Your task to perform on an android device: change keyboard looks Image 0: 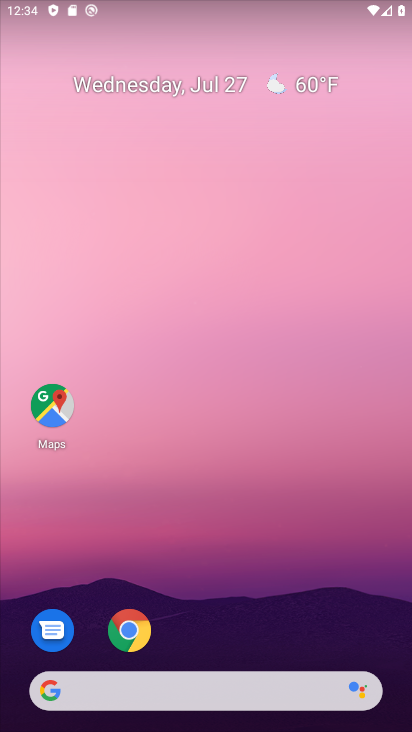
Step 0: press home button
Your task to perform on an android device: change keyboard looks Image 1: 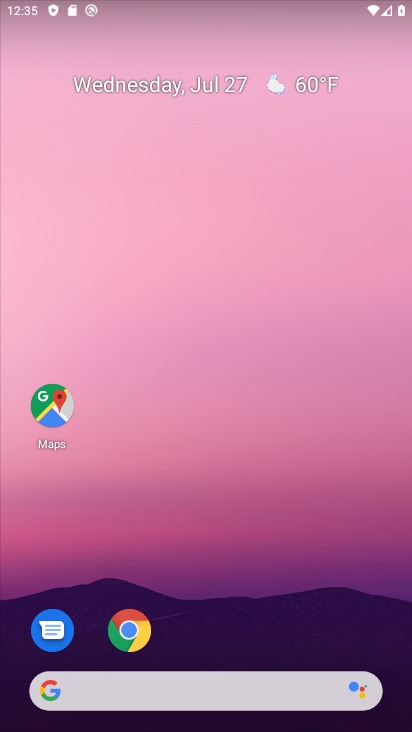
Step 1: drag from (266, 391) to (293, 29)
Your task to perform on an android device: change keyboard looks Image 2: 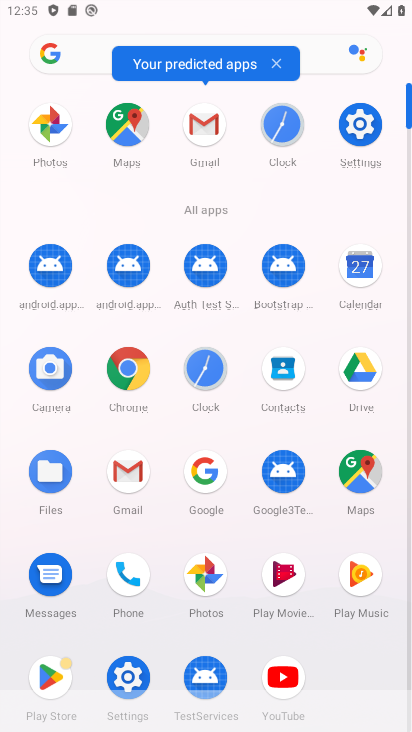
Step 2: click (358, 134)
Your task to perform on an android device: change keyboard looks Image 3: 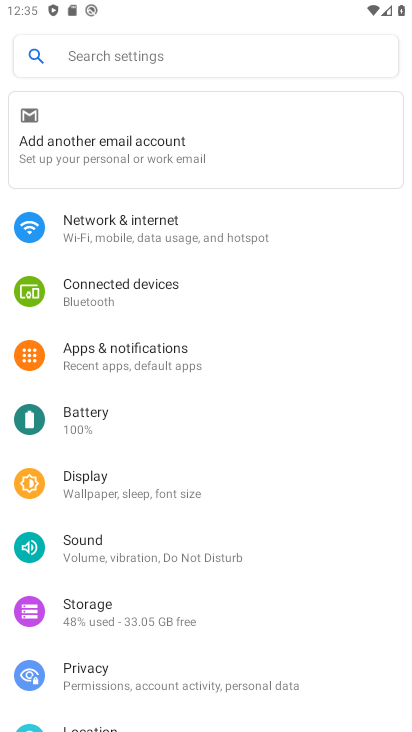
Step 3: drag from (309, 619) to (307, 110)
Your task to perform on an android device: change keyboard looks Image 4: 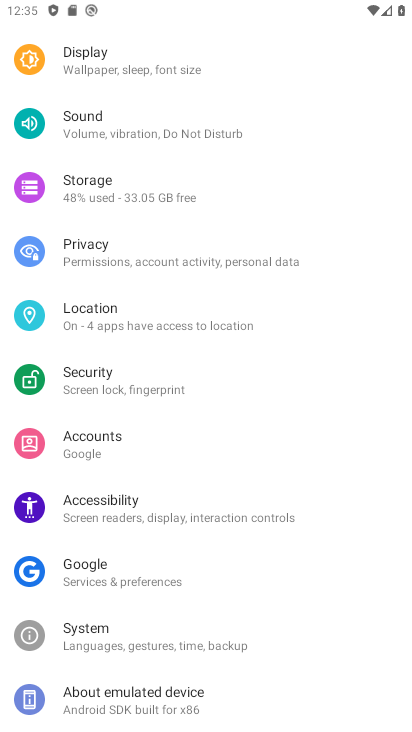
Step 4: click (117, 645)
Your task to perform on an android device: change keyboard looks Image 5: 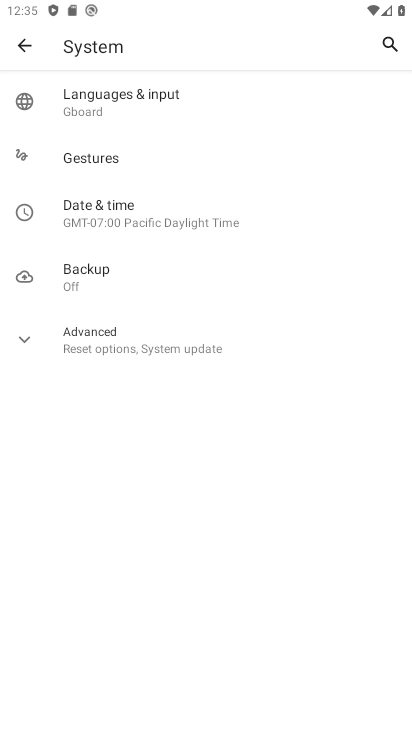
Step 5: click (104, 99)
Your task to perform on an android device: change keyboard looks Image 6: 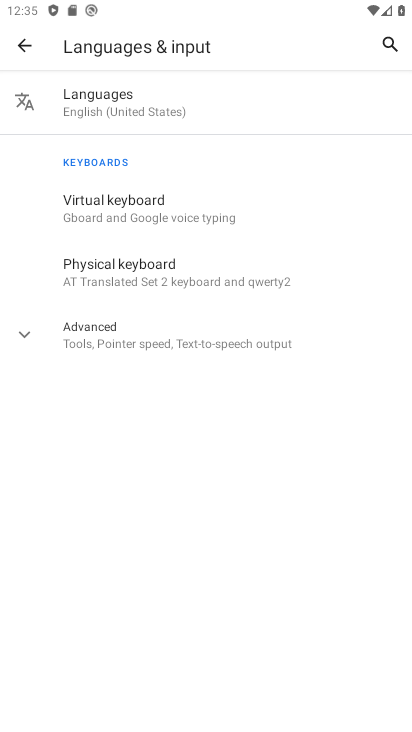
Step 6: click (94, 212)
Your task to perform on an android device: change keyboard looks Image 7: 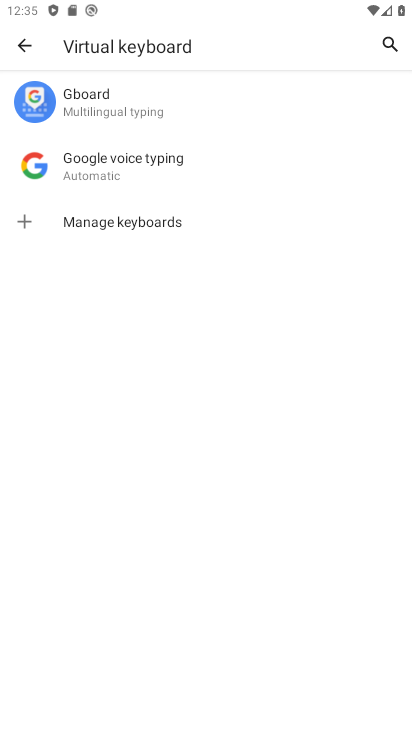
Step 7: click (81, 113)
Your task to perform on an android device: change keyboard looks Image 8: 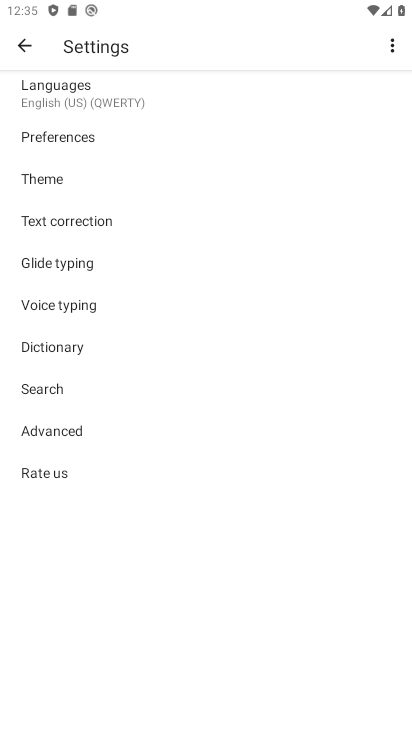
Step 8: click (41, 182)
Your task to perform on an android device: change keyboard looks Image 9: 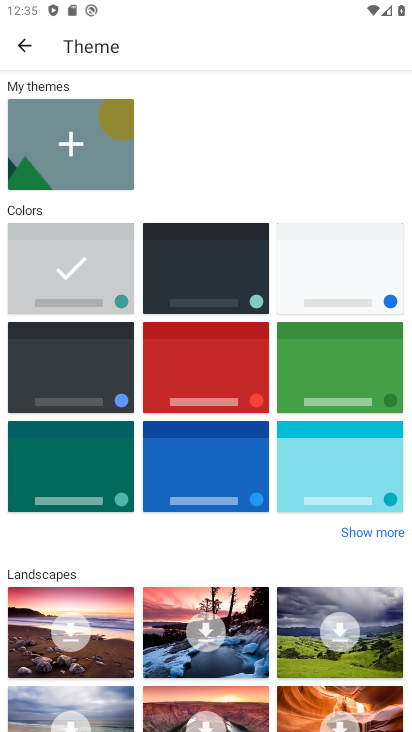
Step 9: click (193, 272)
Your task to perform on an android device: change keyboard looks Image 10: 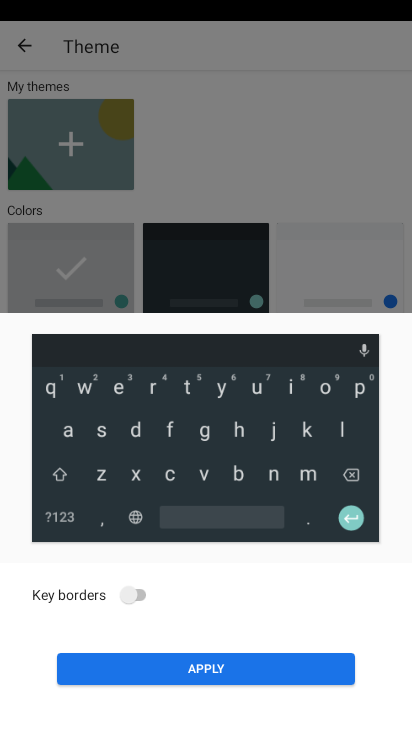
Step 10: click (143, 670)
Your task to perform on an android device: change keyboard looks Image 11: 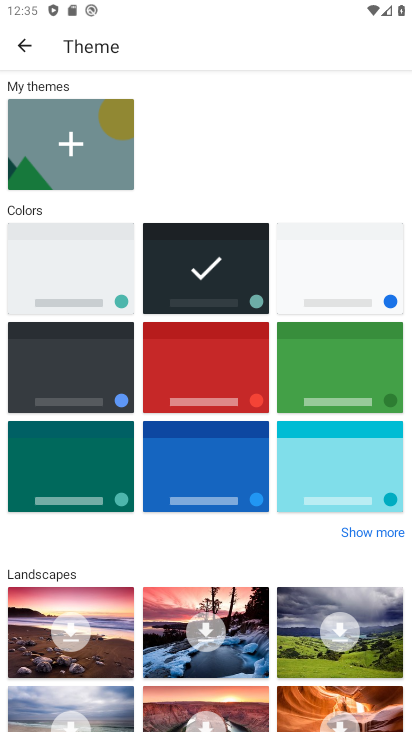
Step 11: task complete